Your task to perform on an android device: Go to battery settings Image 0: 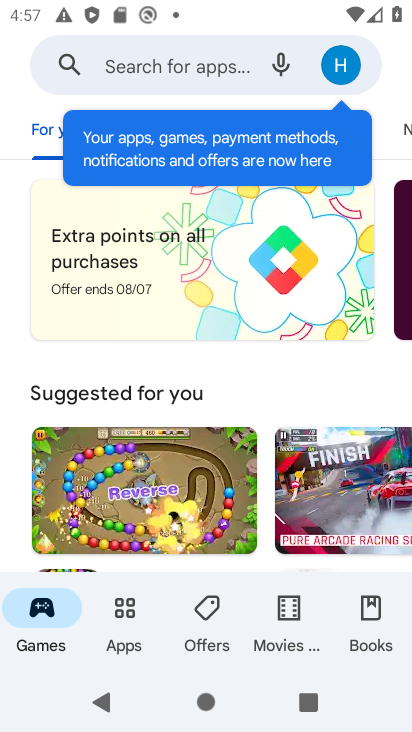
Step 0: press home button
Your task to perform on an android device: Go to battery settings Image 1: 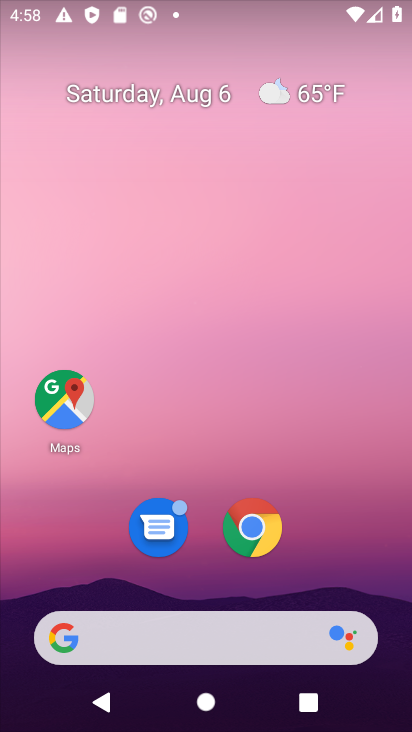
Step 1: drag from (218, 629) to (169, 86)
Your task to perform on an android device: Go to battery settings Image 2: 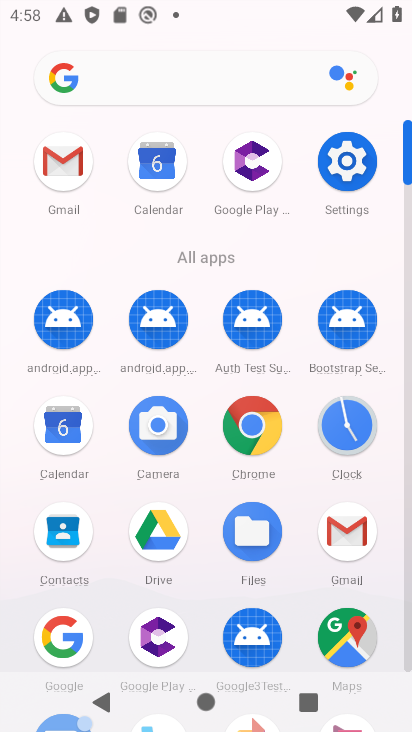
Step 2: click (352, 162)
Your task to perform on an android device: Go to battery settings Image 3: 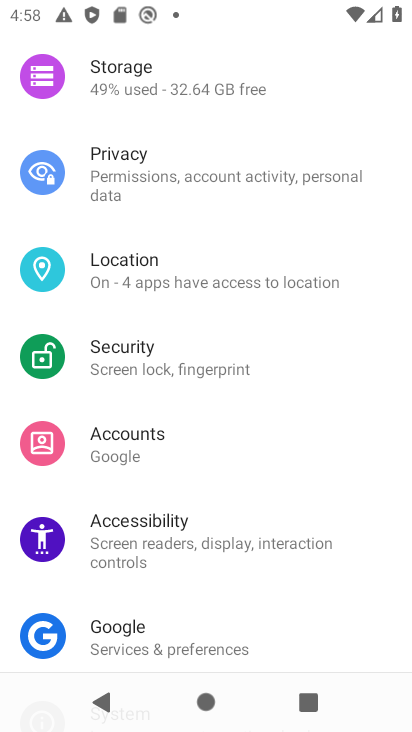
Step 3: drag from (161, 150) to (219, 542)
Your task to perform on an android device: Go to battery settings Image 4: 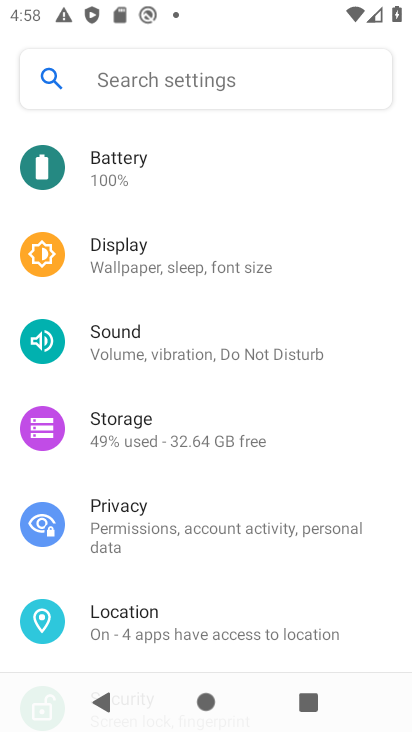
Step 4: click (106, 178)
Your task to perform on an android device: Go to battery settings Image 5: 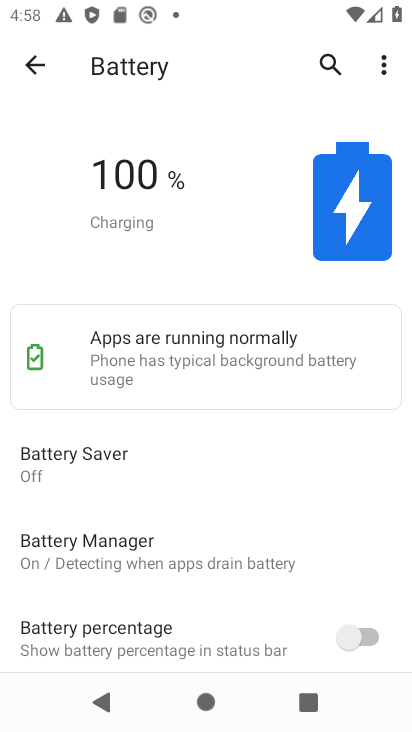
Step 5: task complete